Your task to perform on an android device: Open Google Maps and go to "Timeline" Image 0: 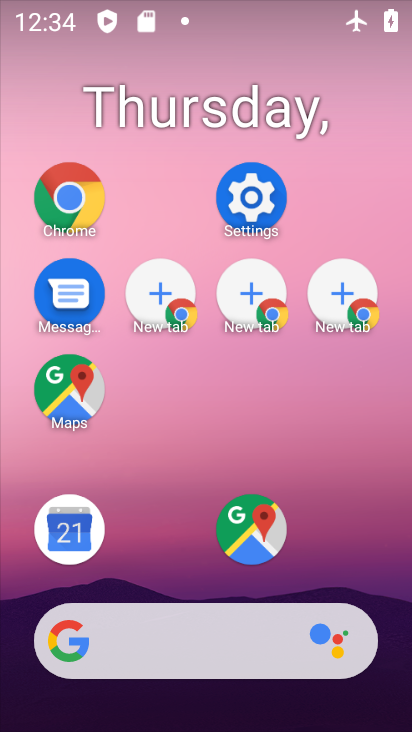
Step 0: drag from (287, 695) to (144, 232)
Your task to perform on an android device: Open Google Maps and go to "Timeline" Image 1: 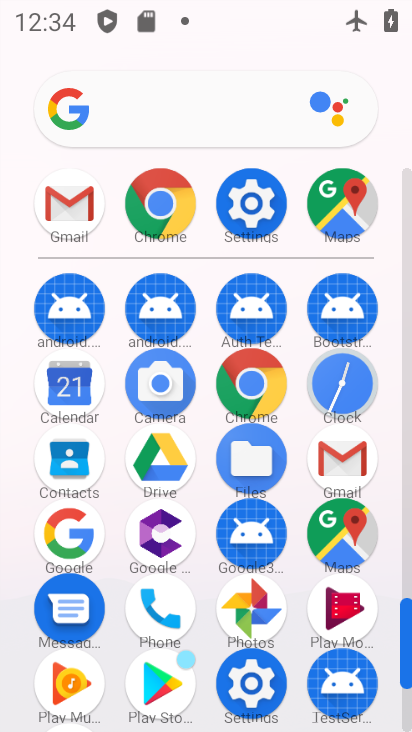
Step 1: click (154, 196)
Your task to perform on an android device: Open Google Maps and go to "Timeline" Image 2: 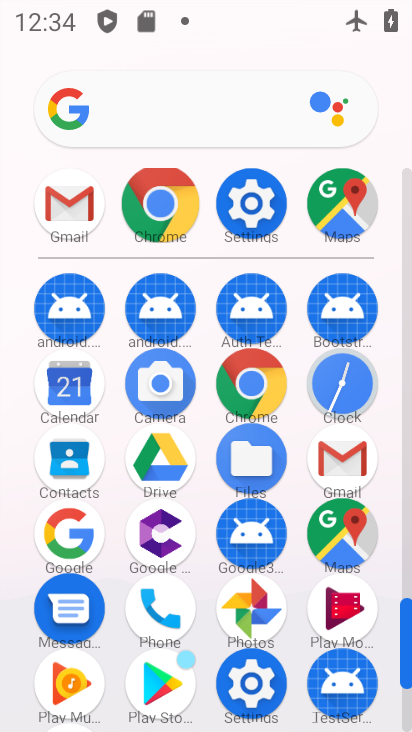
Step 2: click (157, 198)
Your task to perform on an android device: Open Google Maps and go to "Timeline" Image 3: 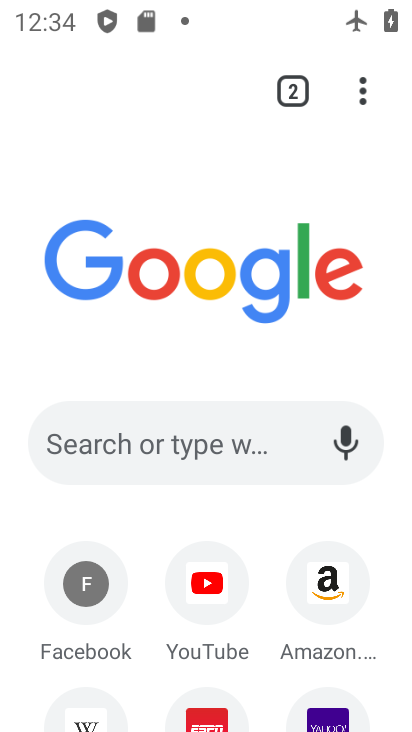
Step 3: click (354, 96)
Your task to perform on an android device: Open Google Maps and go to "Timeline" Image 4: 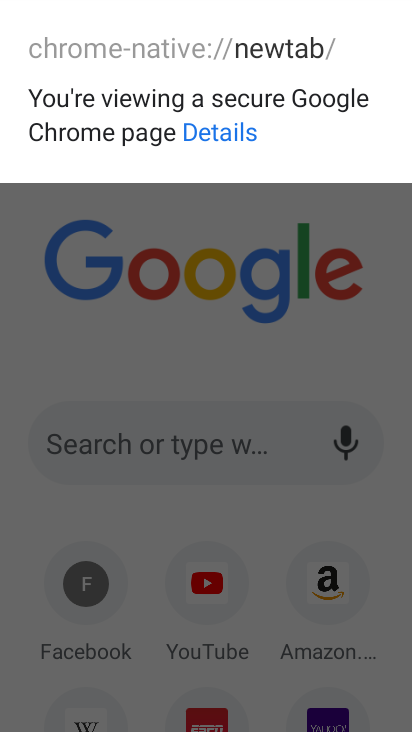
Step 4: click (316, 225)
Your task to perform on an android device: Open Google Maps and go to "Timeline" Image 5: 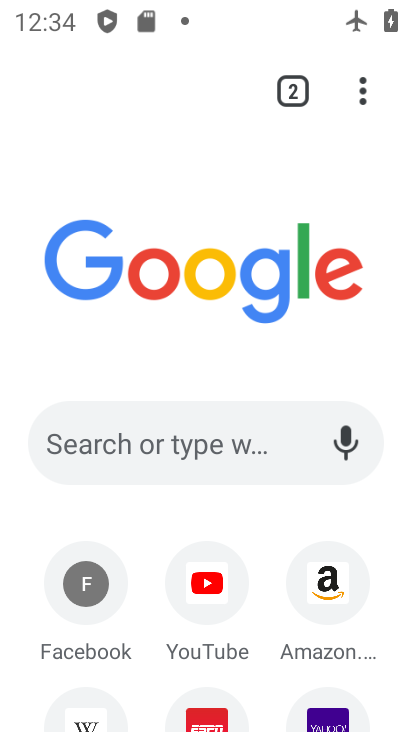
Step 5: click (333, 209)
Your task to perform on an android device: Open Google Maps and go to "Timeline" Image 6: 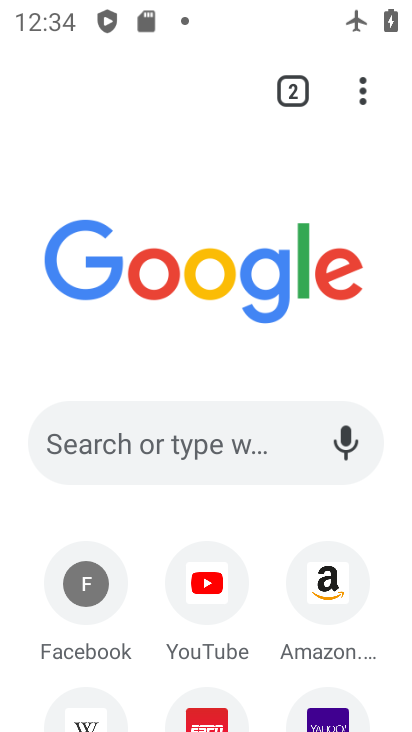
Step 6: click (362, 91)
Your task to perform on an android device: Open Google Maps and go to "Timeline" Image 7: 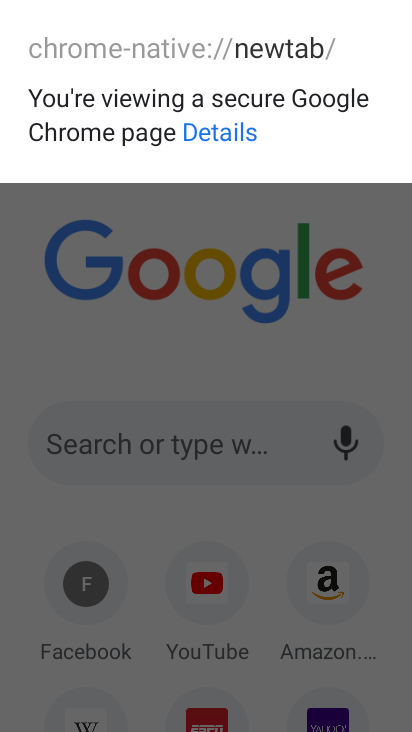
Step 7: drag from (214, 247) to (209, 73)
Your task to perform on an android device: Open Google Maps and go to "Timeline" Image 8: 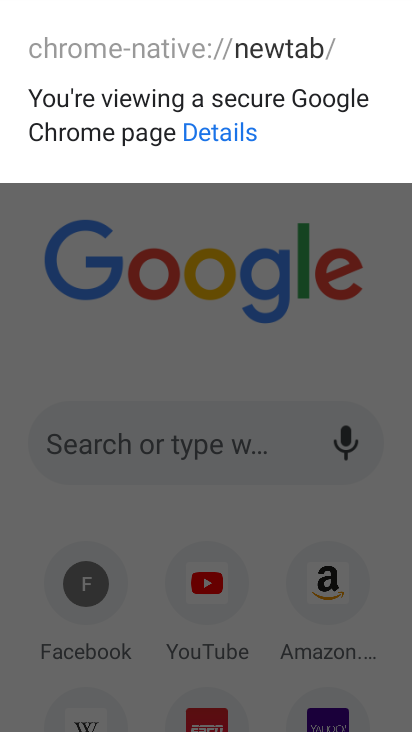
Step 8: drag from (202, 296) to (182, 37)
Your task to perform on an android device: Open Google Maps and go to "Timeline" Image 9: 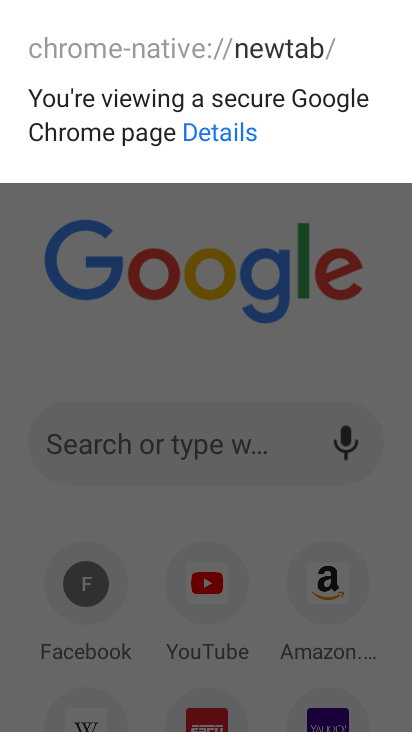
Step 9: click (315, 346)
Your task to perform on an android device: Open Google Maps and go to "Timeline" Image 10: 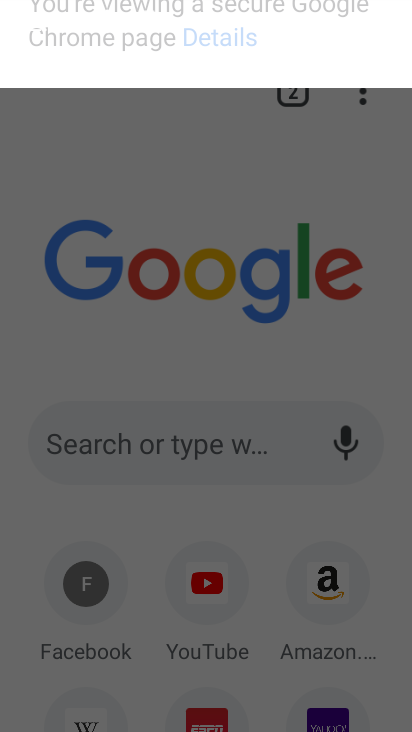
Step 10: click (315, 346)
Your task to perform on an android device: Open Google Maps and go to "Timeline" Image 11: 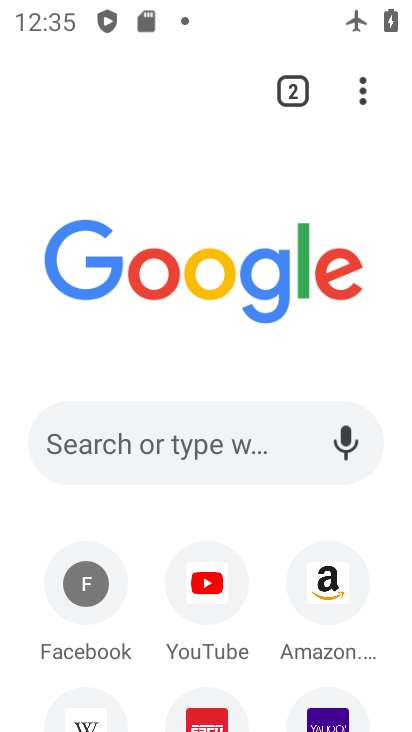
Step 11: click (315, 346)
Your task to perform on an android device: Open Google Maps and go to "Timeline" Image 12: 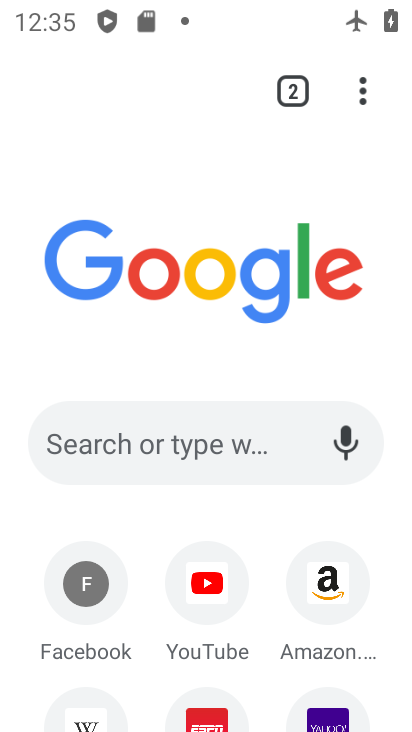
Step 12: press home button
Your task to perform on an android device: Open Google Maps and go to "Timeline" Image 13: 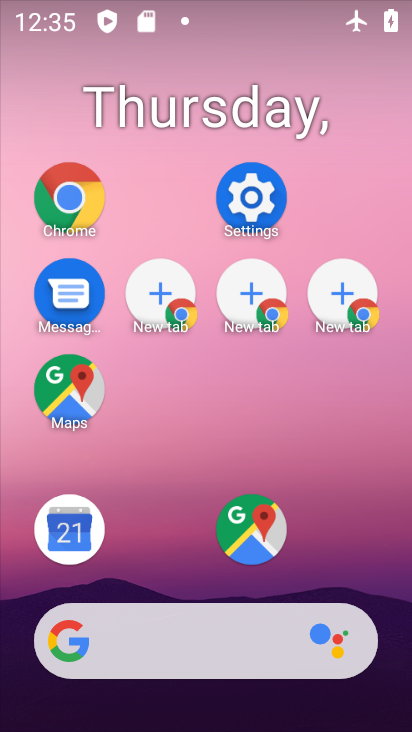
Step 13: click (55, 399)
Your task to perform on an android device: Open Google Maps and go to "Timeline" Image 14: 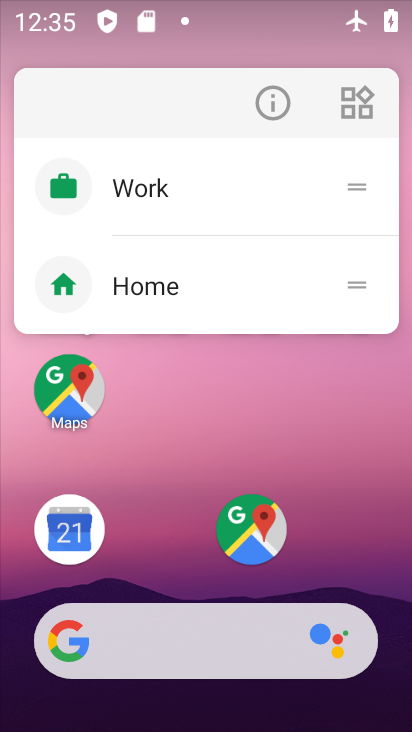
Step 14: click (56, 399)
Your task to perform on an android device: Open Google Maps and go to "Timeline" Image 15: 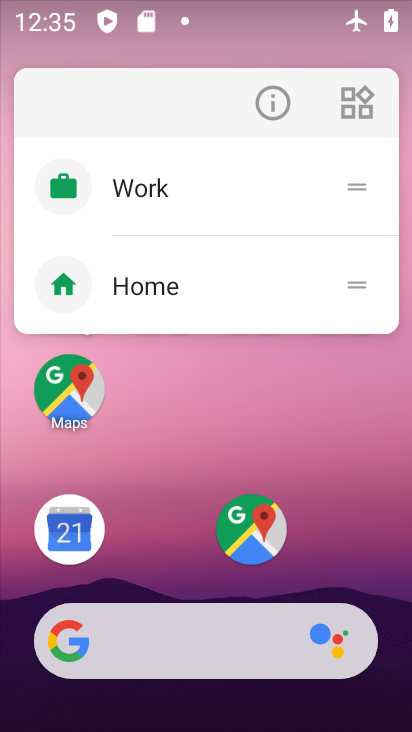
Step 15: click (68, 393)
Your task to perform on an android device: Open Google Maps and go to "Timeline" Image 16: 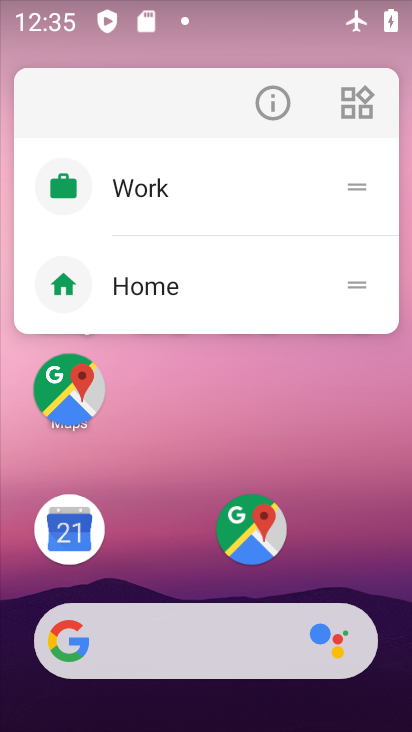
Step 16: click (68, 393)
Your task to perform on an android device: Open Google Maps and go to "Timeline" Image 17: 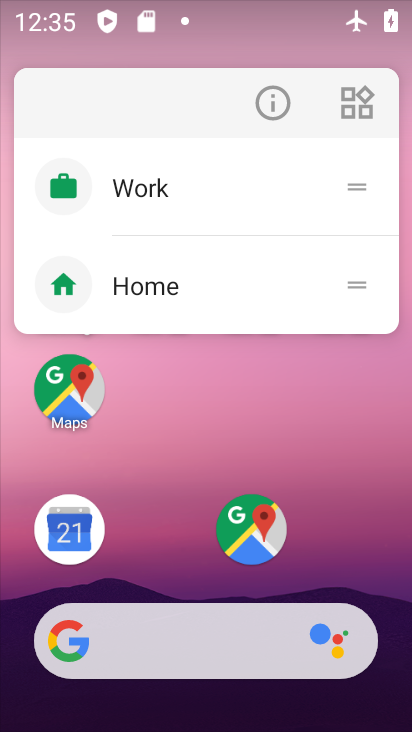
Step 17: click (67, 394)
Your task to perform on an android device: Open Google Maps and go to "Timeline" Image 18: 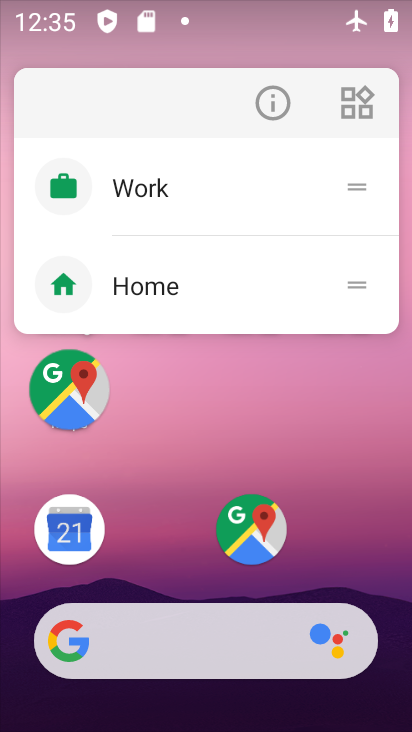
Step 18: click (67, 394)
Your task to perform on an android device: Open Google Maps and go to "Timeline" Image 19: 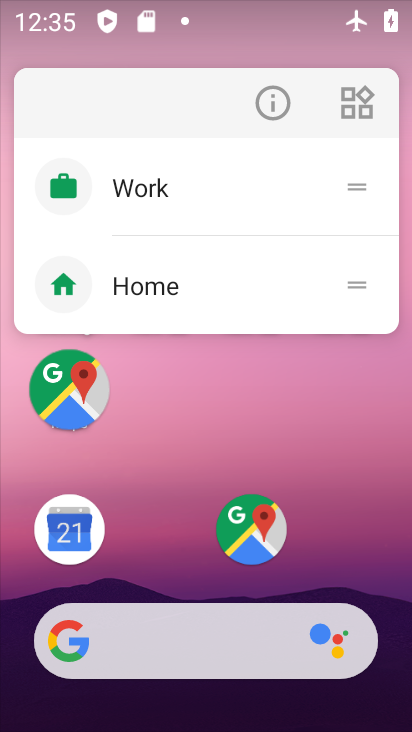
Step 19: click (76, 362)
Your task to perform on an android device: Open Google Maps and go to "Timeline" Image 20: 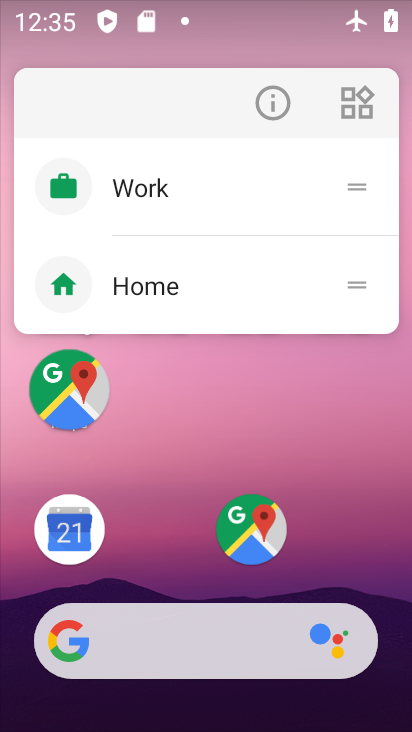
Step 20: click (74, 222)
Your task to perform on an android device: Open Google Maps and go to "Timeline" Image 21: 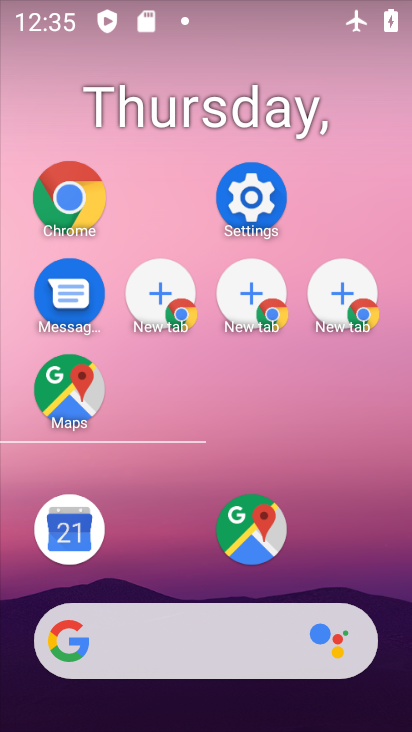
Step 21: drag from (121, 437) to (77, 127)
Your task to perform on an android device: Open Google Maps and go to "Timeline" Image 22: 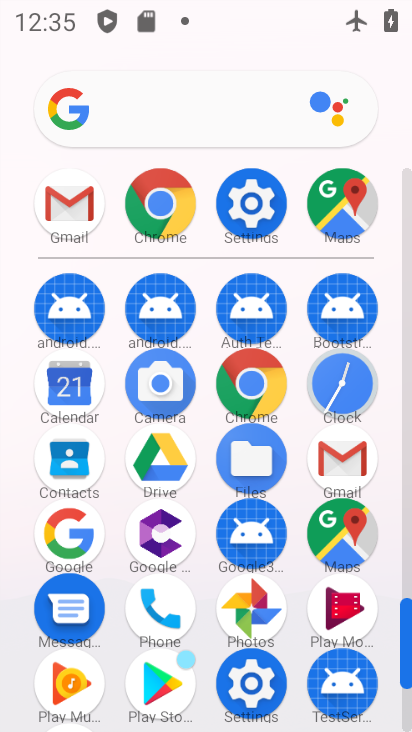
Step 22: click (342, 206)
Your task to perform on an android device: Open Google Maps and go to "Timeline" Image 23: 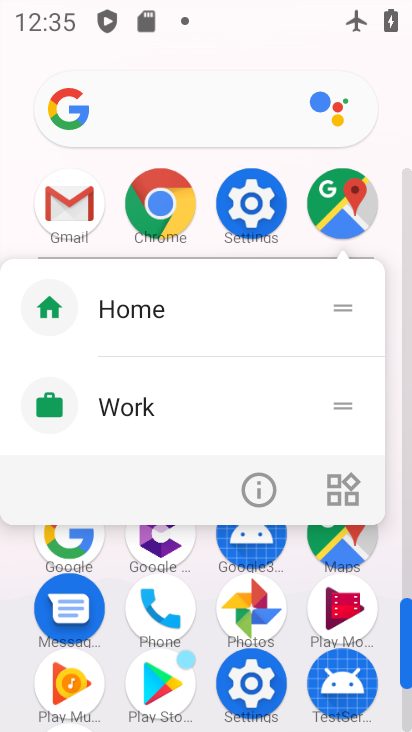
Step 23: click (333, 199)
Your task to perform on an android device: Open Google Maps and go to "Timeline" Image 24: 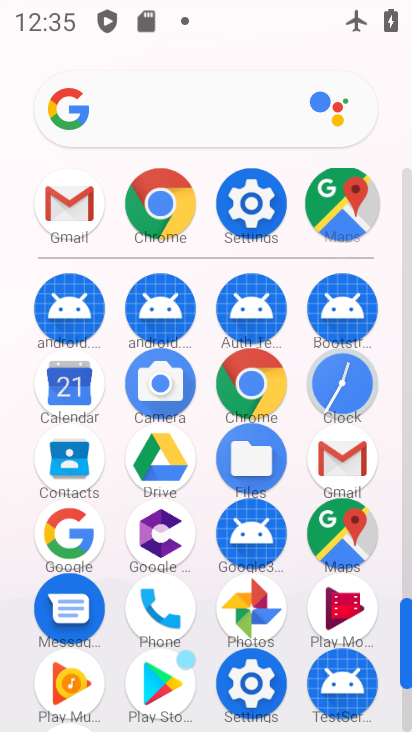
Step 24: click (333, 199)
Your task to perform on an android device: Open Google Maps and go to "Timeline" Image 25: 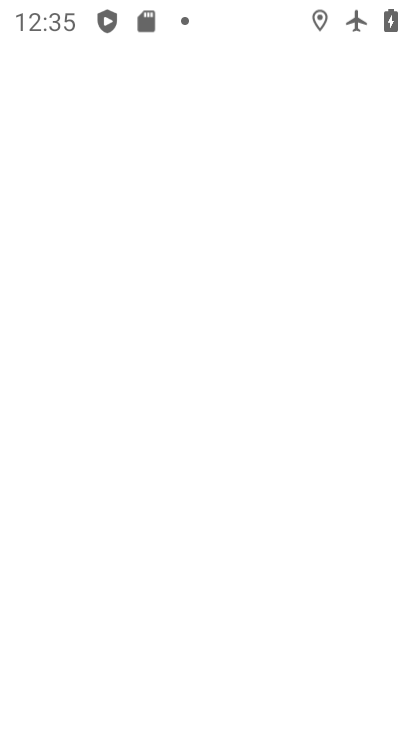
Step 25: click (332, 200)
Your task to perform on an android device: Open Google Maps and go to "Timeline" Image 26: 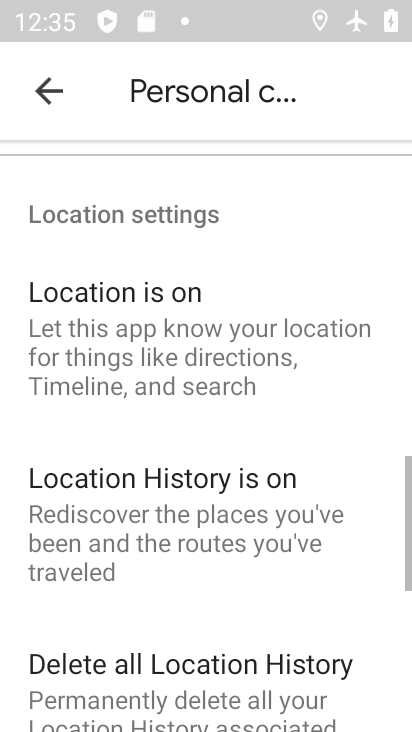
Step 26: click (332, 200)
Your task to perform on an android device: Open Google Maps and go to "Timeline" Image 27: 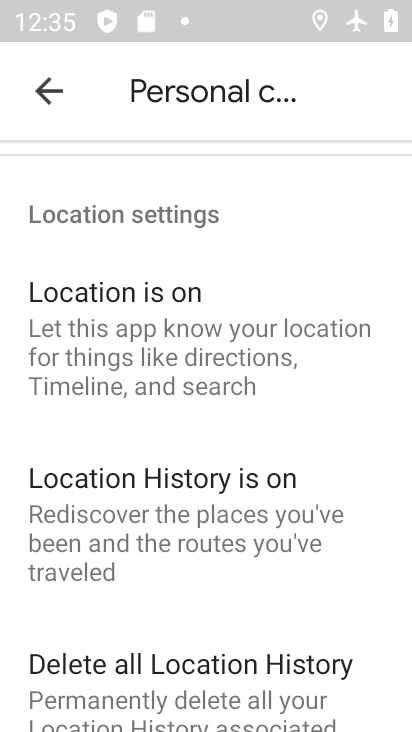
Step 27: click (50, 91)
Your task to perform on an android device: Open Google Maps and go to "Timeline" Image 28: 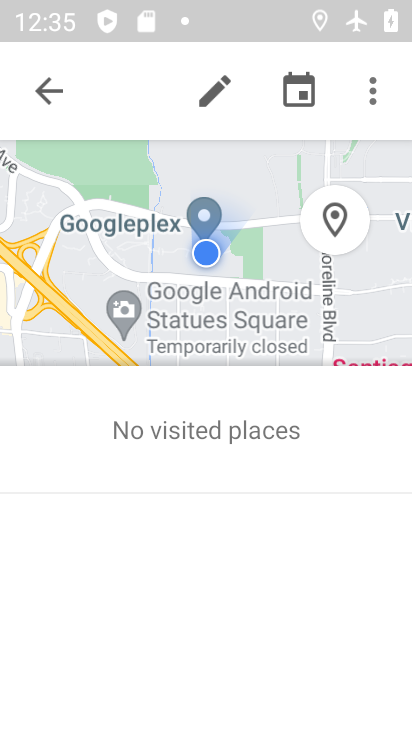
Step 28: click (44, 87)
Your task to perform on an android device: Open Google Maps and go to "Timeline" Image 29: 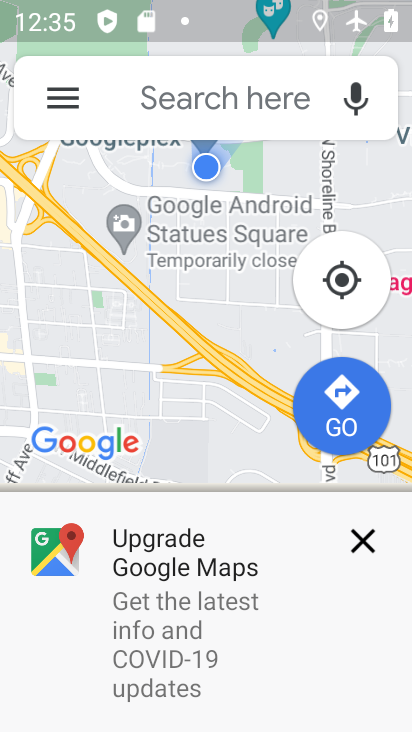
Step 29: click (51, 46)
Your task to perform on an android device: Open Google Maps and go to "Timeline" Image 30: 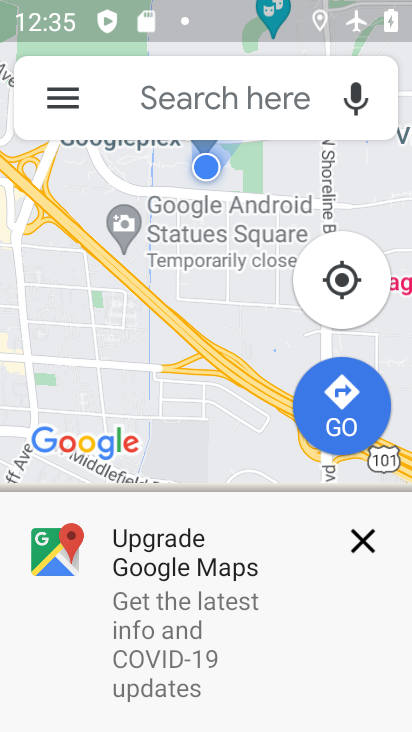
Step 30: drag from (59, 87) to (96, 238)
Your task to perform on an android device: Open Google Maps and go to "Timeline" Image 31: 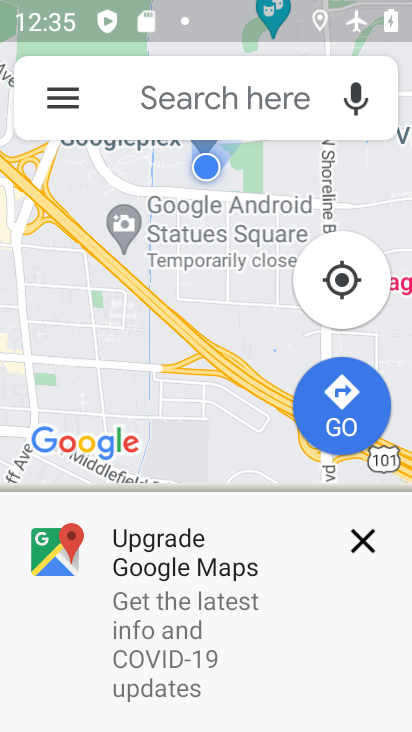
Step 31: click (65, 93)
Your task to perform on an android device: Open Google Maps and go to "Timeline" Image 32: 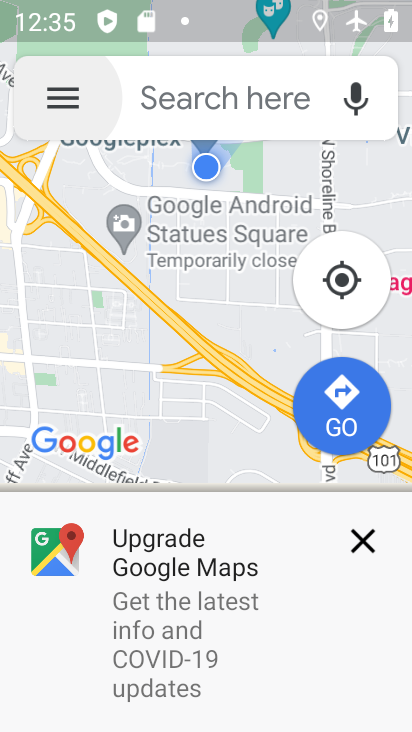
Step 32: click (71, 103)
Your task to perform on an android device: Open Google Maps and go to "Timeline" Image 33: 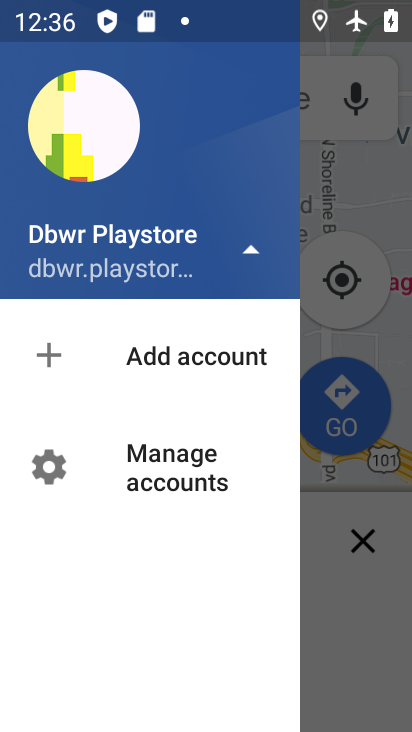
Step 33: click (256, 241)
Your task to perform on an android device: Open Google Maps and go to "Timeline" Image 34: 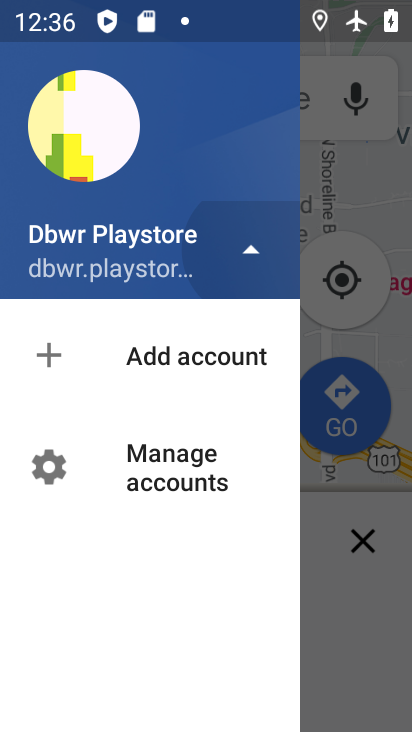
Step 34: click (256, 241)
Your task to perform on an android device: Open Google Maps and go to "Timeline" Image 35: 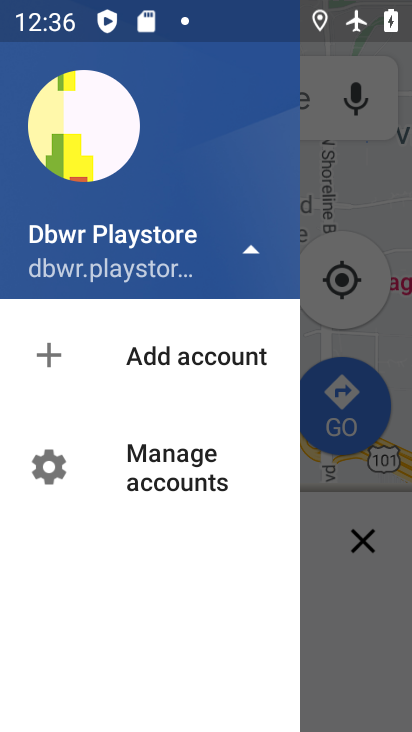
Step 35: click (251, 246)
Your task to perform on an android device: Open Google Maps and go to "Timeline" Image 36: 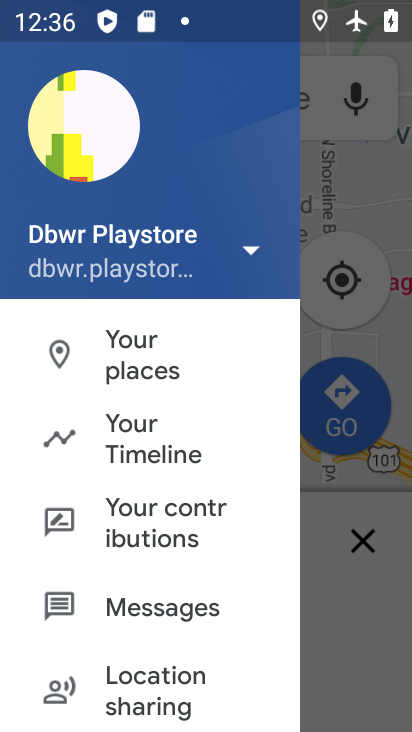
Step 36: click (248, 248)
Your task to perform on an android device: Open Google Maps and go to "Timeline" Image 37: 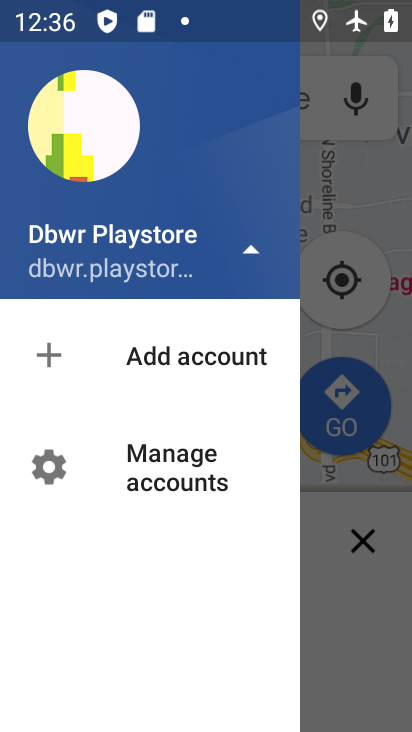
Step 37: click (165, 446)
Your task to perform on an android device: Open Google Maps and go to "Timeline" Image 38: 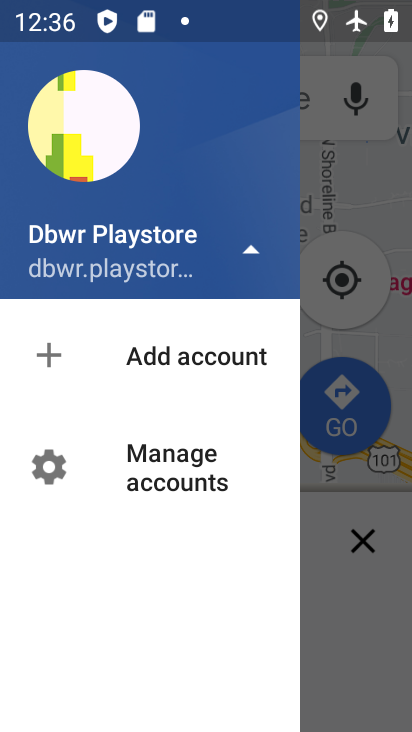
Step 38: click (155, 441)
Your task to perform on an android device: Open Google Maps and go to "Timeline" Image 39: 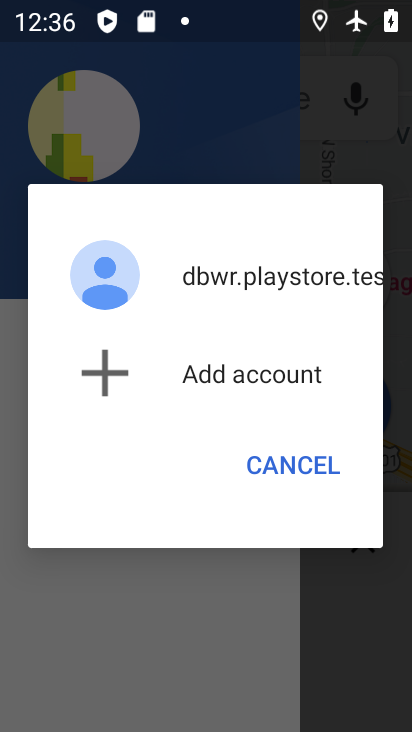
Step 39: click (267, 464)
Your task to perform on an android device: Open Google Maps and go to "Timeline" Image 40: 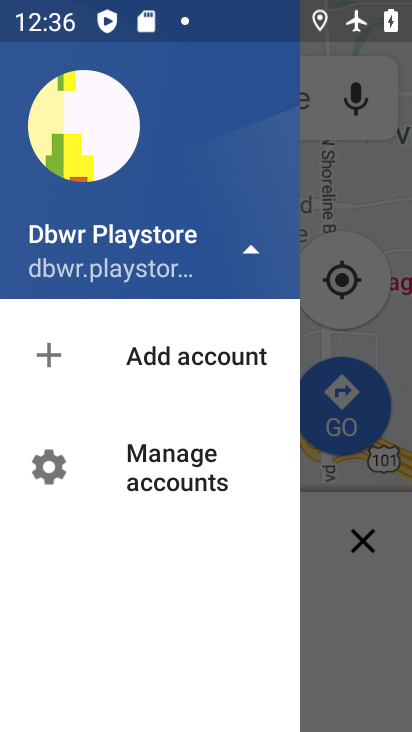
Step 40: task complete